Your task to perform on an android device: turn off smart reply in the gmail app Image 0: 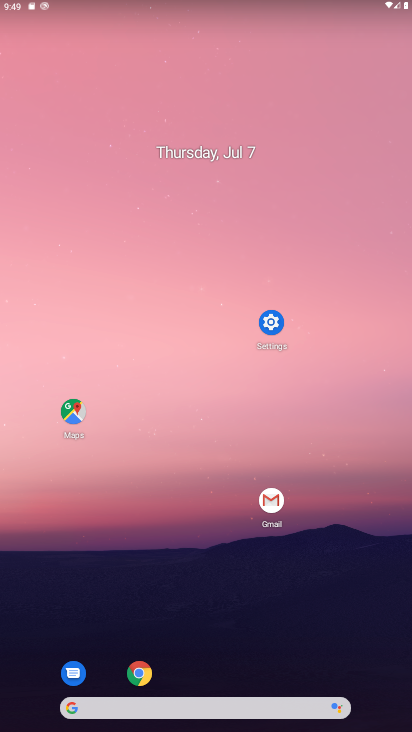
Step 0: click (272, 507)
Your task to perform on an android device: turn off smart reply in the gmail app Image 1: 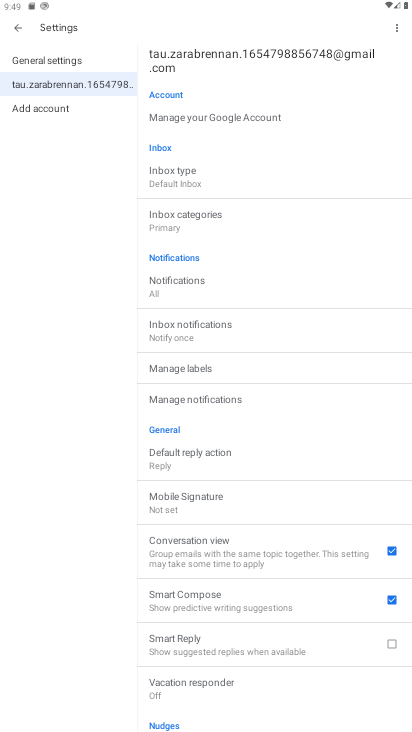
Step 1: task complete